Your task to perform on an android device: snooze an email in the gmail app Image 0: 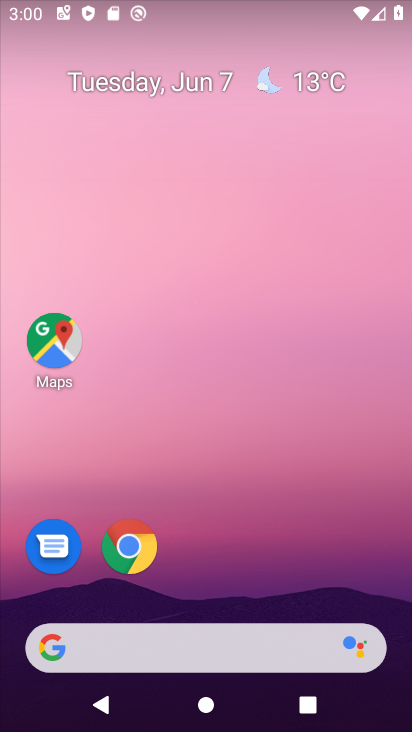
Step 0: drag from (159, 462) to (323, 216)
Your task to perform on an android device: snooze an email in the gmail app Image 1: 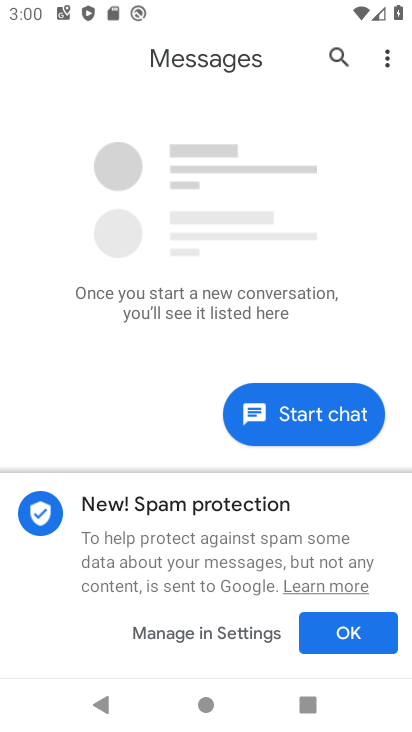
Step 1: press home button
Your task to perform on an android device: snooze an email in the gmail app Image 2: 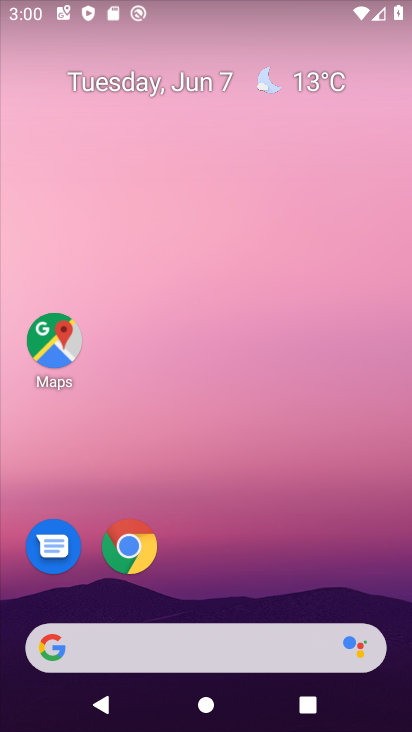
Step 2: drag from (30, 514) to (252, 91)
Your task to perform on an android device: snooze an email in the gmail app Image 3: 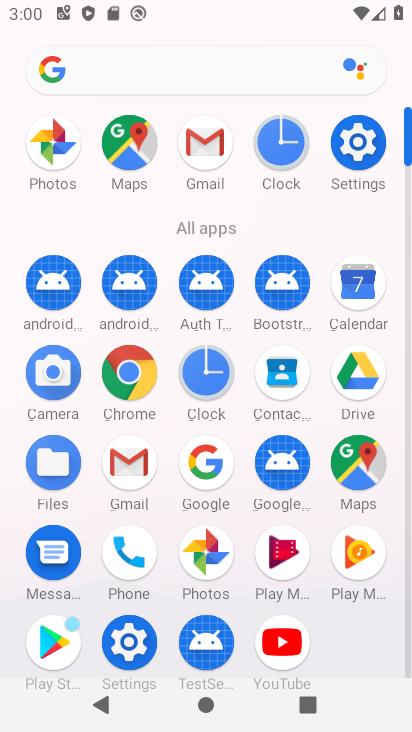
Step 3: click (362, 145)
Your task to perform on an android device: snooze an email in the gmail app Image 4: 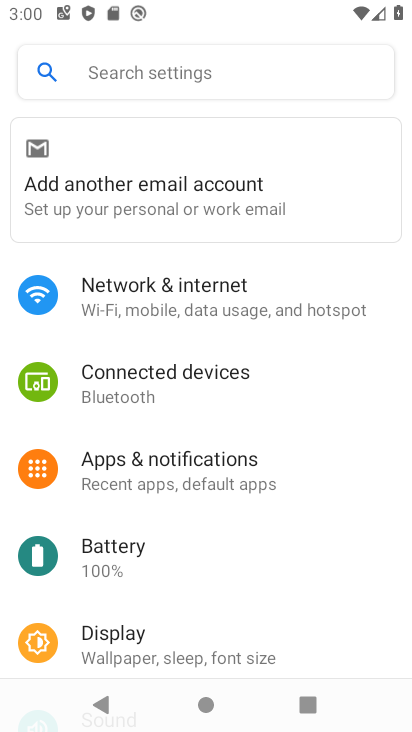
Step 4: click (137, 181)
Your task to perform on an android device: snooze an email in the gmail app Image 5: 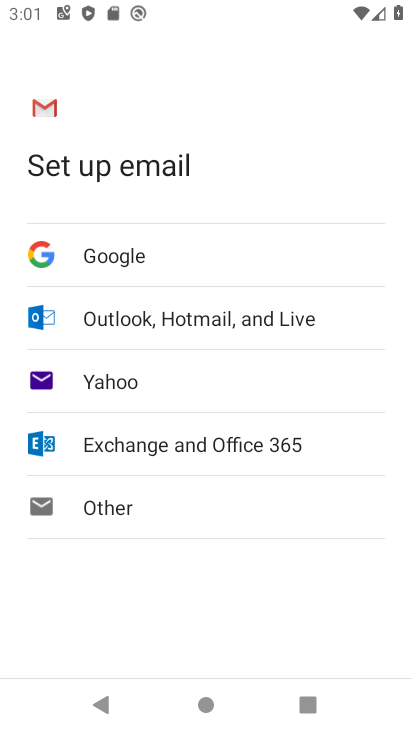
Step 5: press home button
Your task to perform on an android device: snooze an email in the gmail app Image 6: 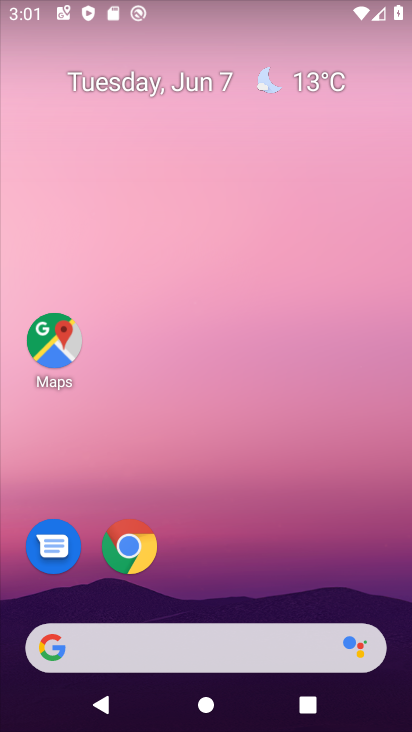
Step 6: drag from (25, 632) to (321, 167)
Your task to perform on an android device: snooze an email in the gmail app Image 7: 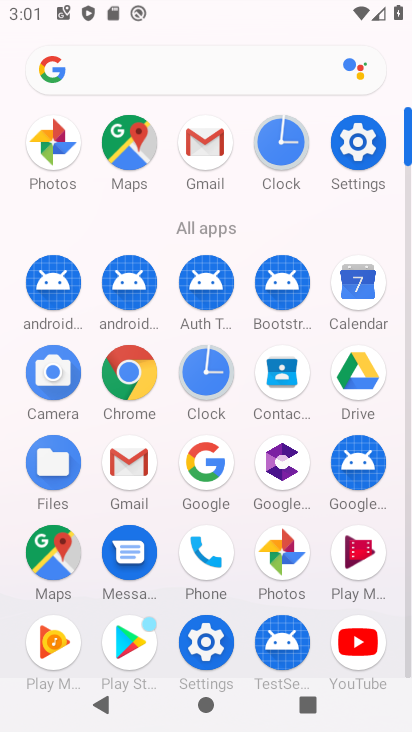
Step 7: click (138, 466)
Your task to perform on an android device: snooze an email in the gmail app Image 8: 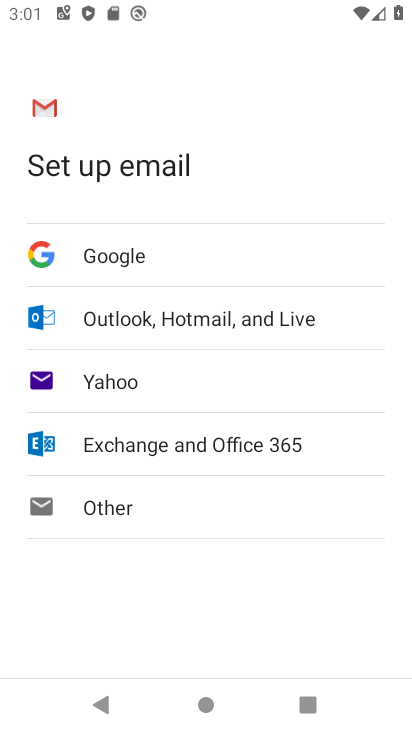
Step 8: click (135, 510)
Your task to perform on an android device: snooze an email in the gmail app Image 9: 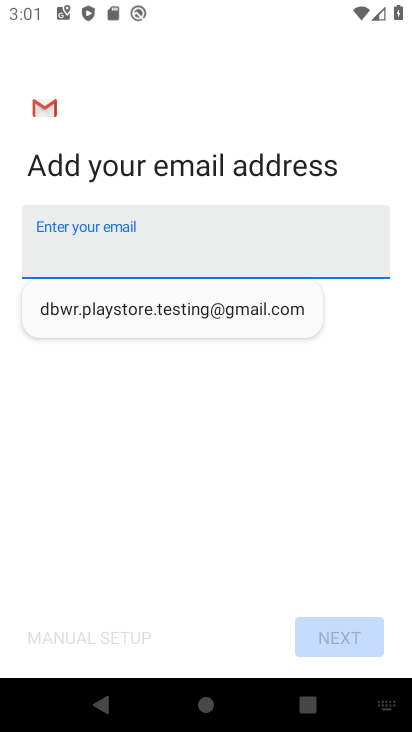
Step 9: task complete